Your task to perform on an android device: clear history in the chrome app Image 0: 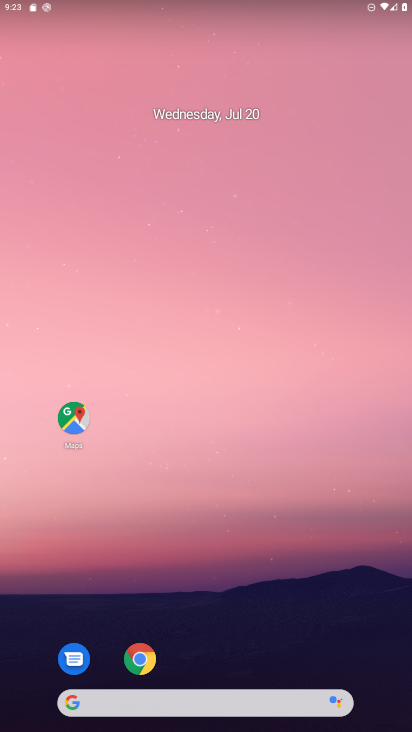
Step 0: drag from (230, 582) to (137, 75)
Your task to perform on an android device: clear history in the chrome app Image 1: 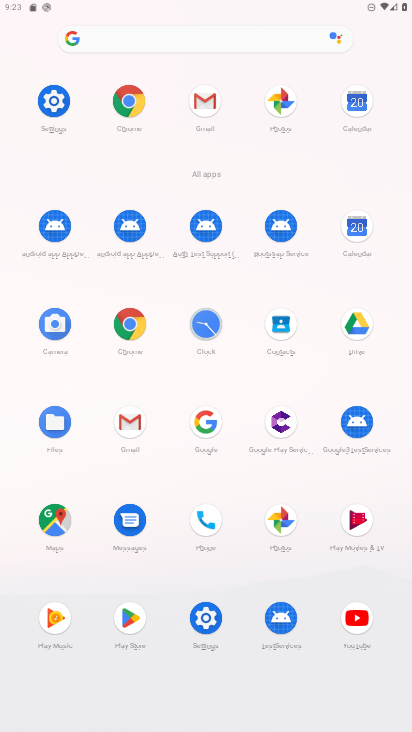
Step 1: click (143, 104)
Your task to perform on an android device: clear history in the chrome app Image 2: 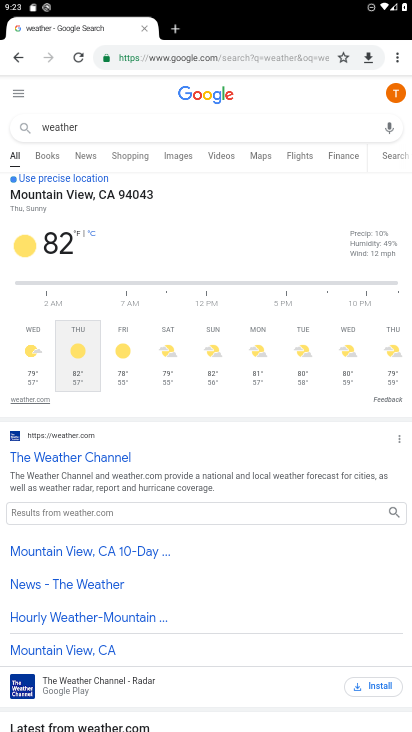
Step 2: drag from (401, 57) to (273, 122)
Your task to perform on an android device: clear history in the chrome app Image 3: 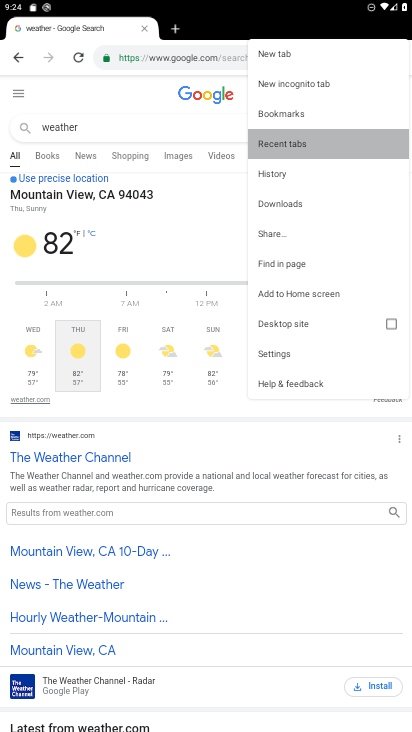
Step 3: click (275, 117)
Your task to perform on an android device: clear history in the chrome app Image 4: 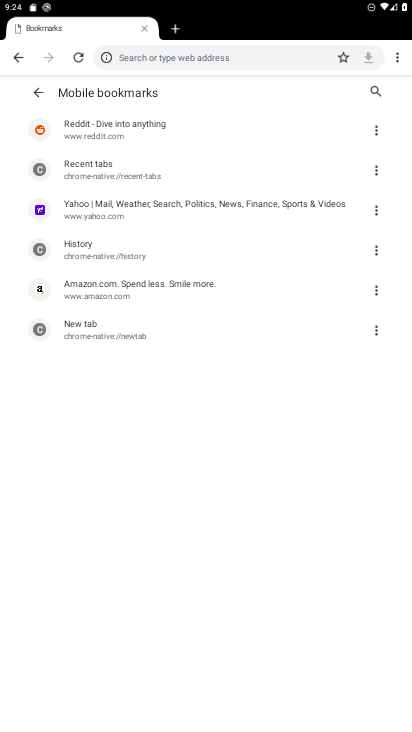
Step 4: click (12, 50)
Your task to perform on an android device: clear history in the chrome app Image 5: 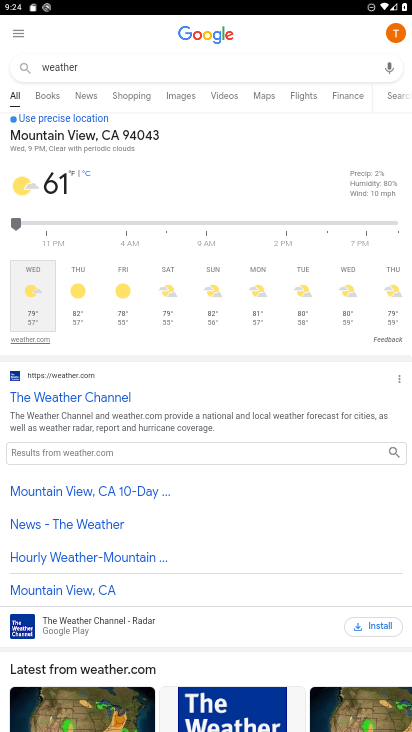
Step 5: drag from (403, 55) to (381, 211)
Your task to perform on an android device: clear history in the chrome app Image 6: 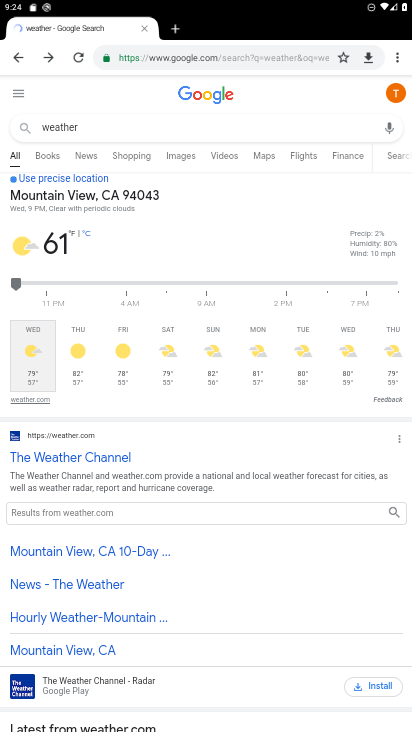
Step 6: drag from (402, 52) to (282, 178)
Your task to perform on an android device: clear history in the chrome app Image 7: 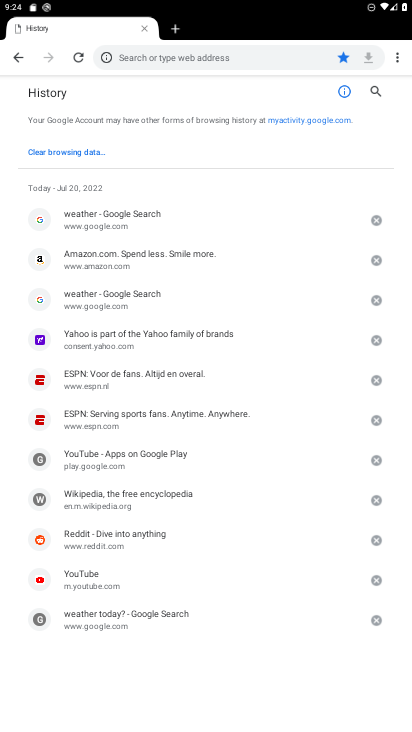
Step 7: click (64, 150)
Your task to perform on an android device: clear history in the chrome app Image 8: 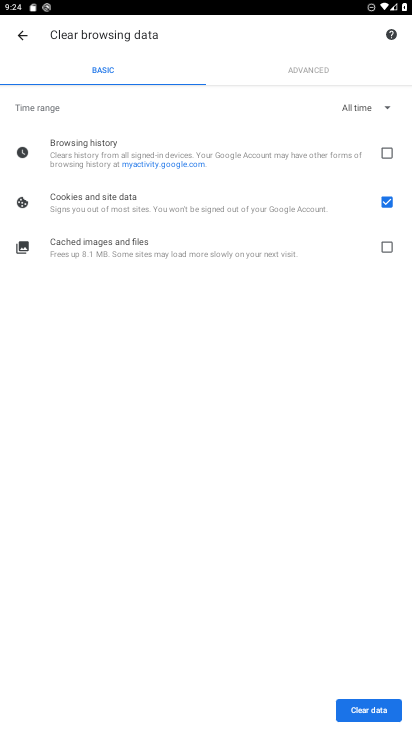
Step 8: click (390, 150)
Your task to perform on an android device: clear history in the chrome app Image 9: 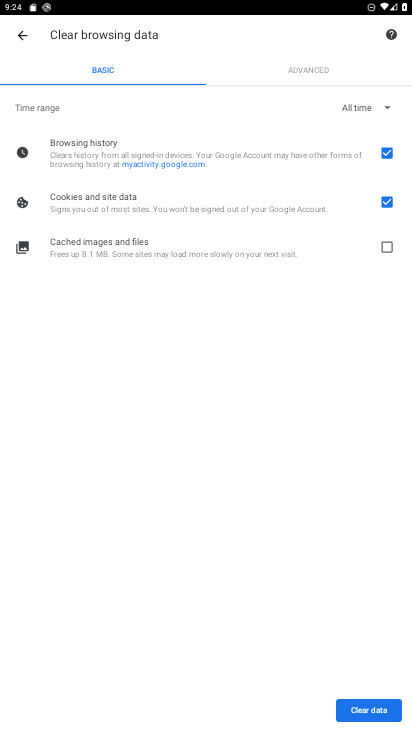
Step 9: click (362, 711)
Your task to perform on an android device: clear history in the chrome app Image 10: 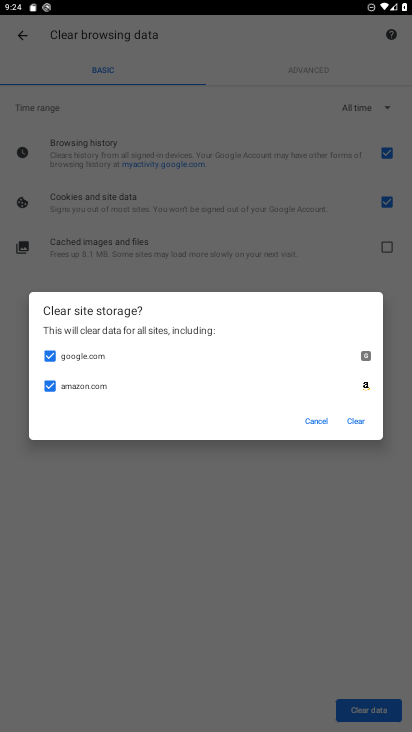
Step 10: click (362, 411)
Your task to perform on an android device: clear history in the chrome app Image 11: 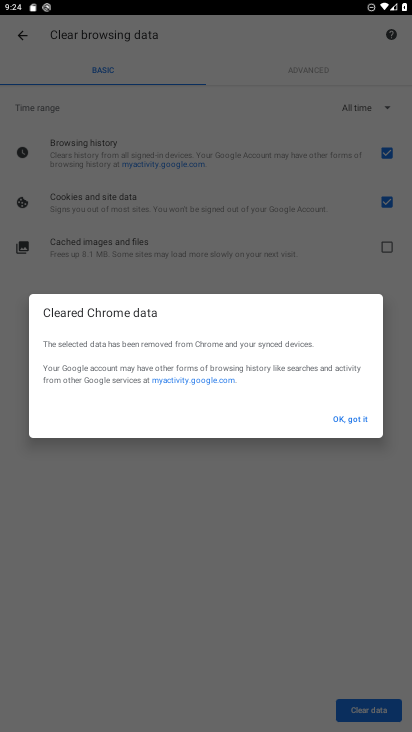
Step 11: task complete